Your task to perform on an android device: Go to Amazon Image 0: 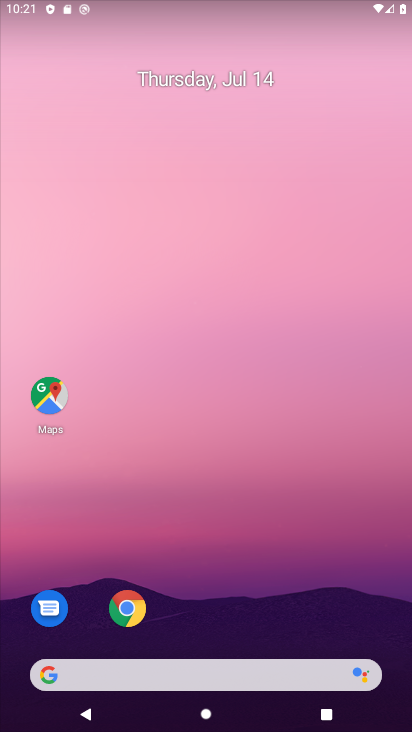
Step 0: click (122, 602)
Your task to perform on an android device: Go to Amazon Image 1: 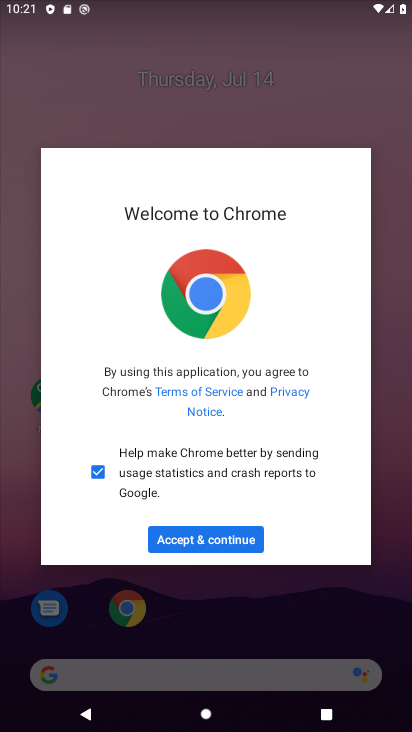
Step 1: click (174, 545)
Your task to perform on an android device: Go to Amazon Image 2: 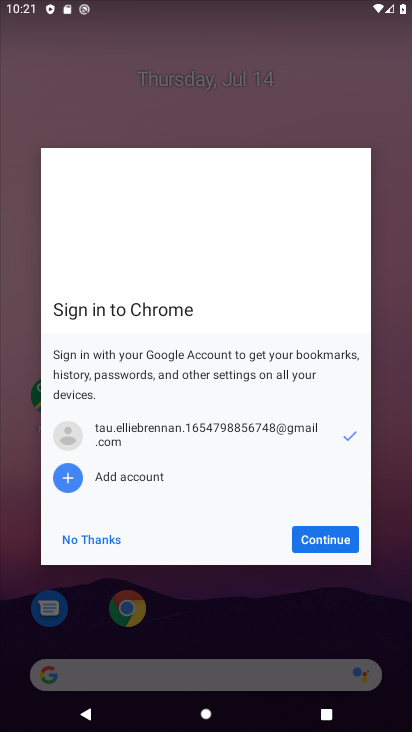
Step 2: click (344, 538)
Your task to perform on an android device: Go to Amazon Image 3: 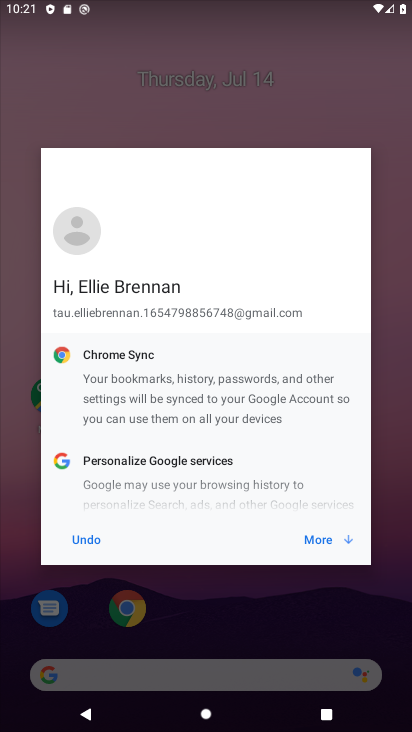
Step 3: click (344, 538)
Your task to perform on an android device: Go to Amazon Image 4: 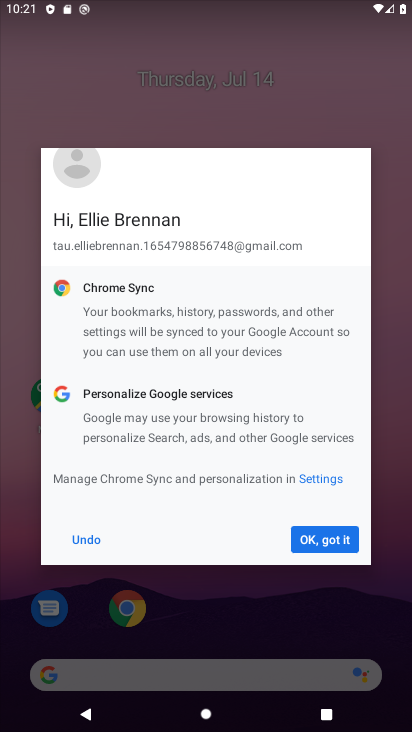
Step 4: click (329, 539)
Your task to perform on an android device: Go to Amazon Image 5: 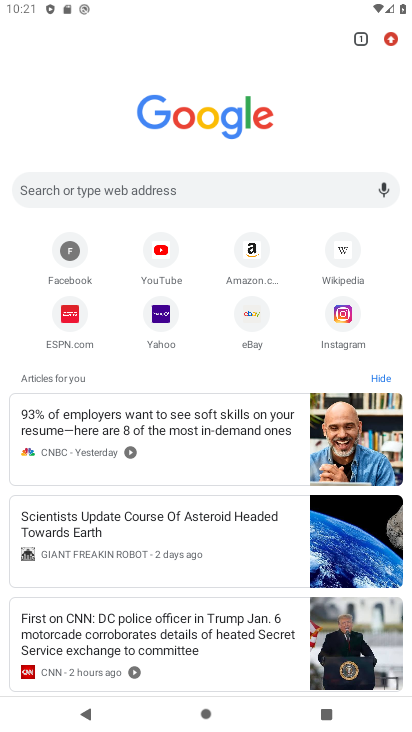
Step 5: click (265, 240)
Your task to perform on an android device: Go to Amazon Image 6: 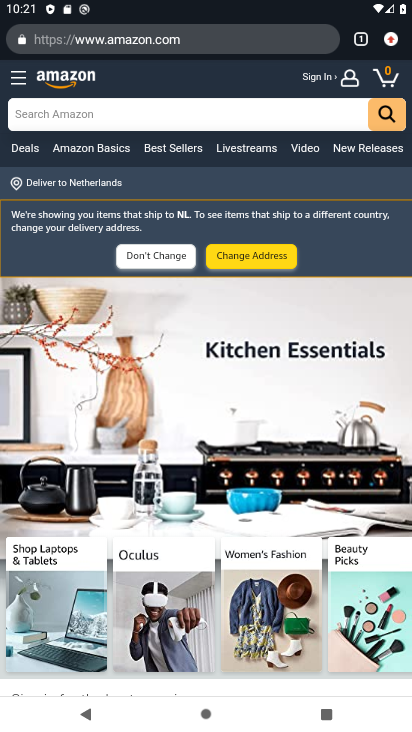
Step 6: task complete